Your task to perform on an android device: Go to accessibility settings Image 0: 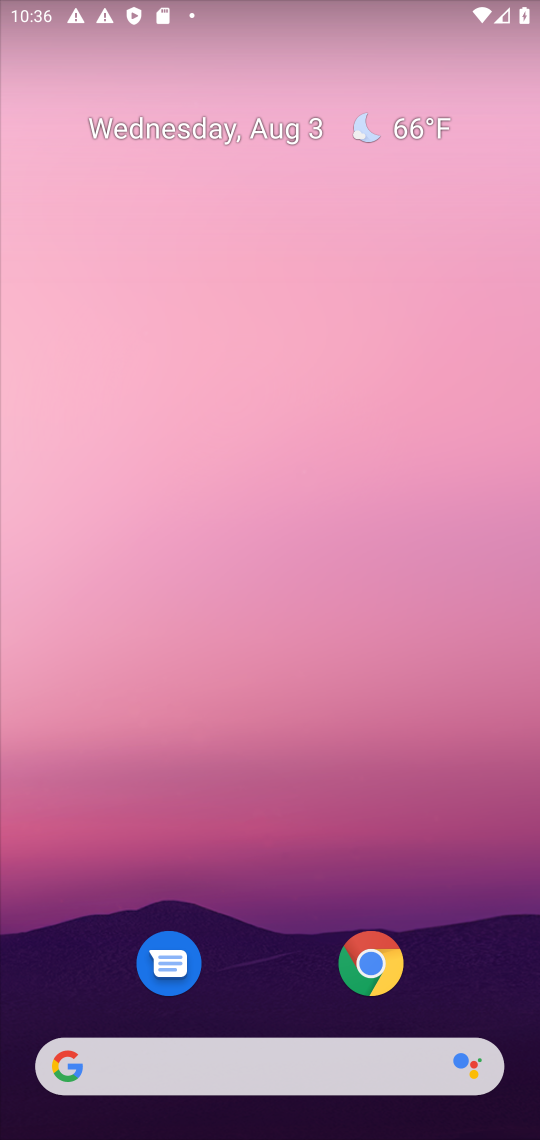
Step 0: drag from (303, 908) to (347, 75)
Your task to perform on an android device: Go to accessibility settings Image 1: 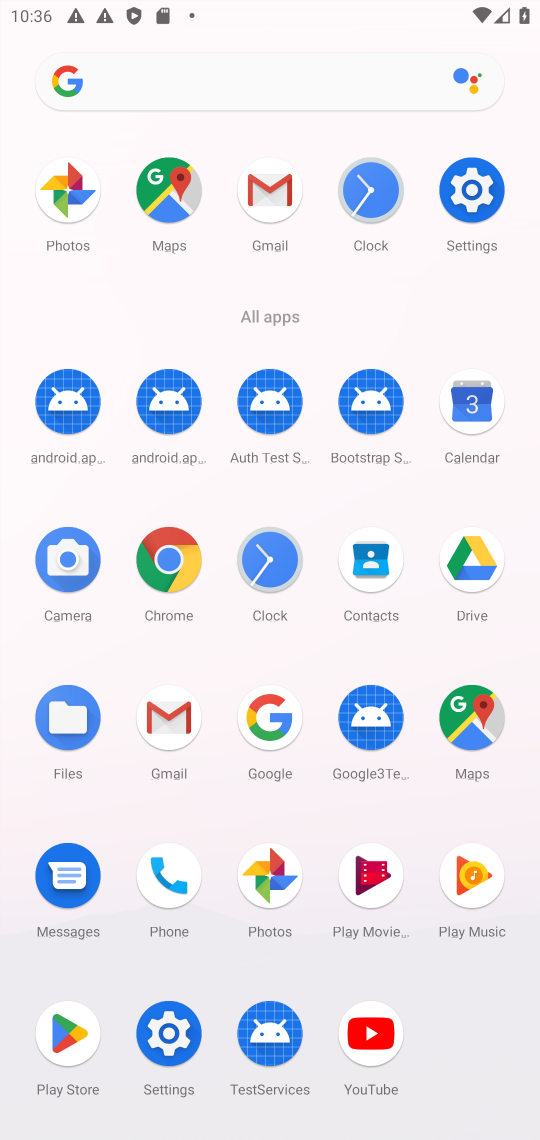
Step 1: click (473, 204)
Your task to perform on an android device: Go to accessibility settings Image 2: 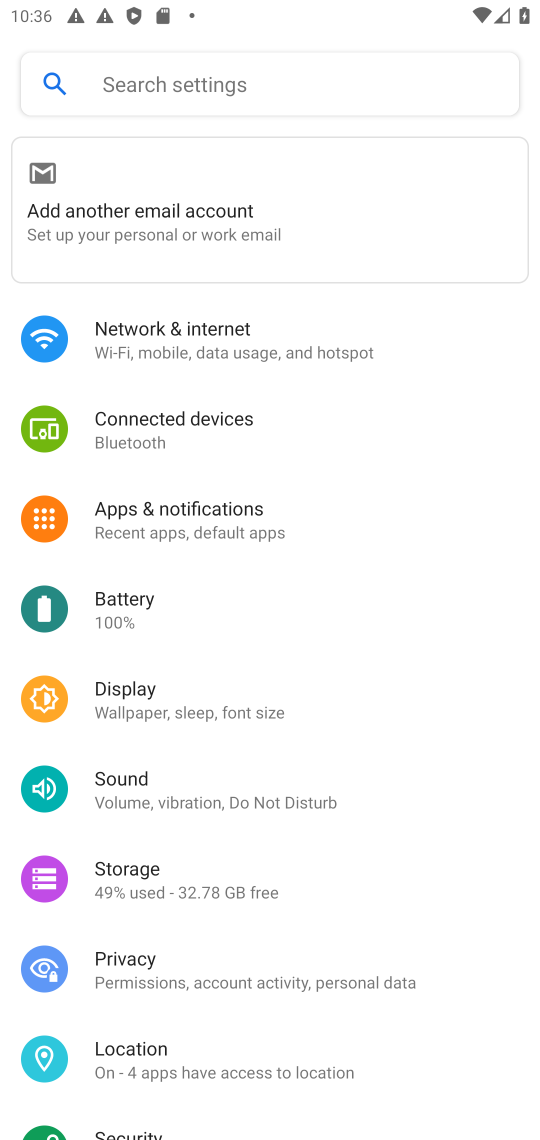
Step 2: drag from (294, 777) to (356, 385)
Your task to perform on an android device: Go to accessibility settings Image 3: 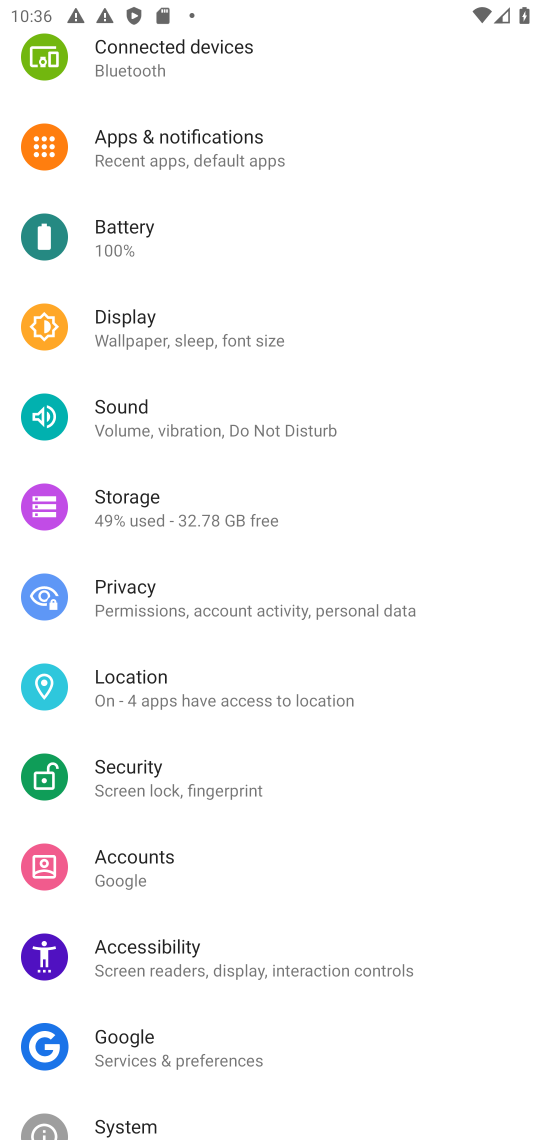
Step 3: click (222, 945)
Your task to perform on an android device: Go to accessibility settings Image 4: 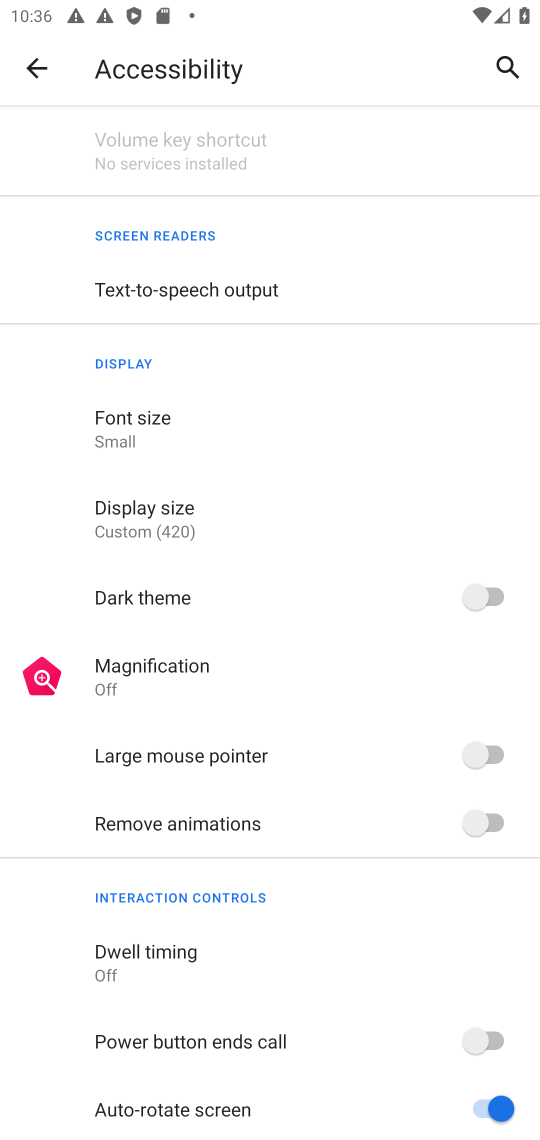
Step 4: task complete